Your task to perform on an android device: turn vacation reply on in the gmail app Image 0: 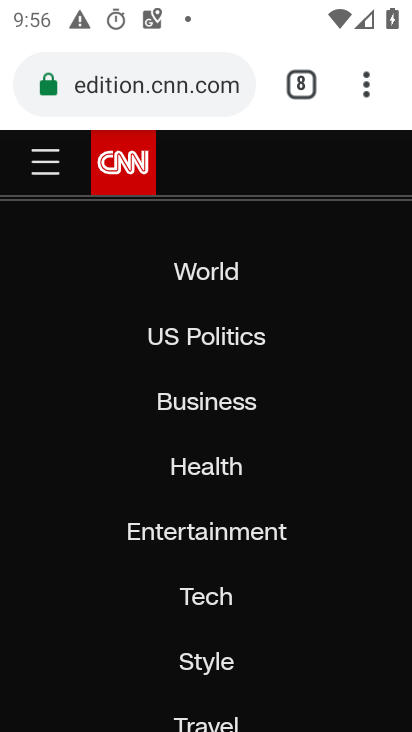
Step 0: press home button
Your task to perform on an android device: turn vacation reply on in the gmail app Image 1: 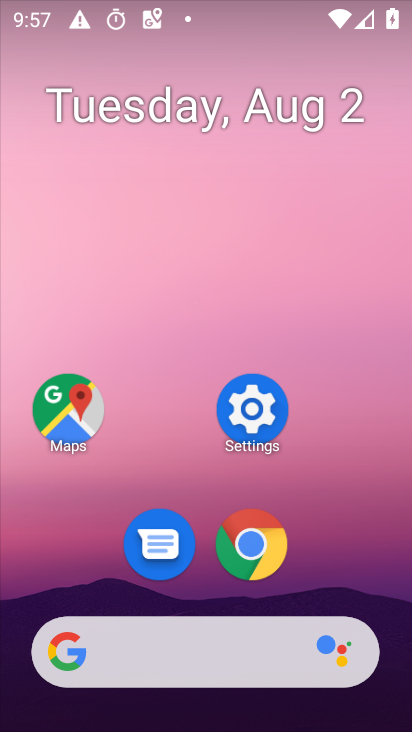
Step 1: drag from (245, 504) to (350, 100)
Your task to perform on an android device: turn vacation reply on in the gmail app Image 2: 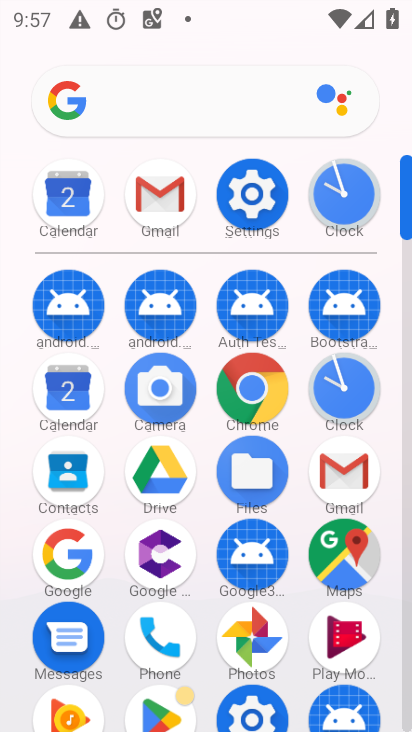
Step 2: click (160, 206)
Your task to perform on an android device: turn vacation reply on in the gmail app Image 3: 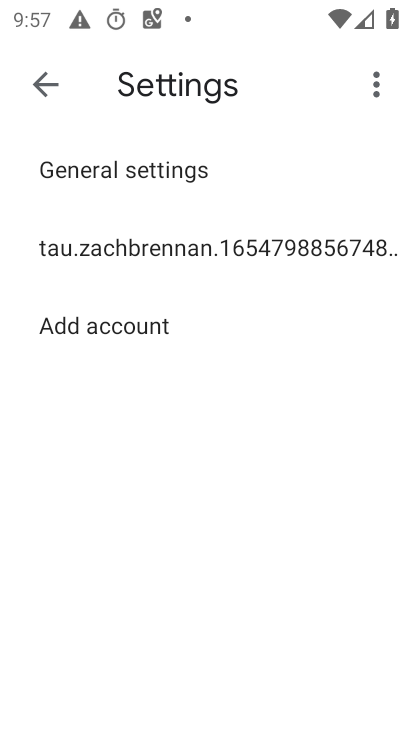
Step 3: click (244, 248)
Your task to perform on an android device: turn vacation reply on in the gmail app Image 4: 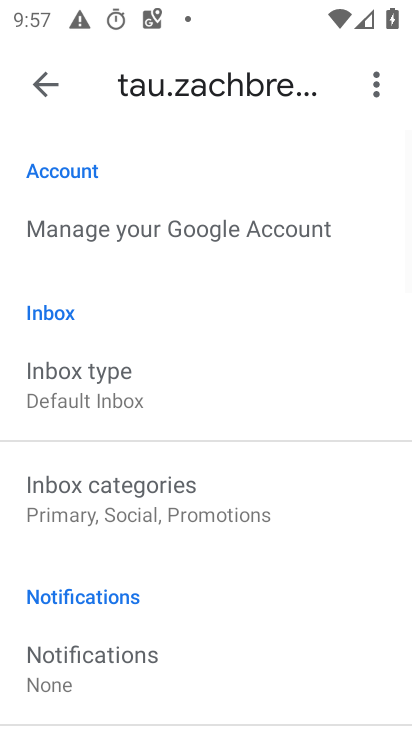
Step 4: drag from (208, 568) to (365, 56)
Your task to perform on an android device: turn vacation reply on in the gmail app Image 5: 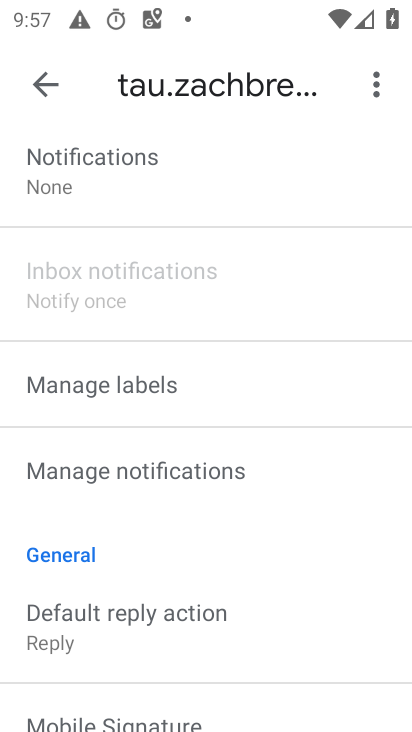
Step 5: drag from (260, 590) to (352, 174)
Your task to perform on an android device: turn vacation reply on in the gmail app Image 6: 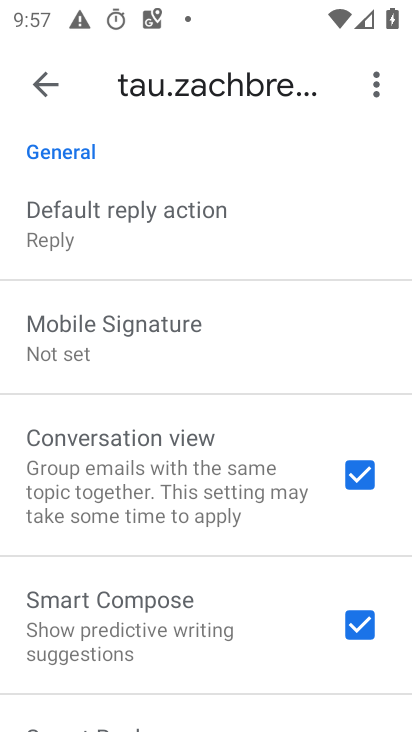
Step 6: drag from (215, 640) to (319, 212)
Your task to perform on an android device: turn vacation reply on in the gmail app Image 7: 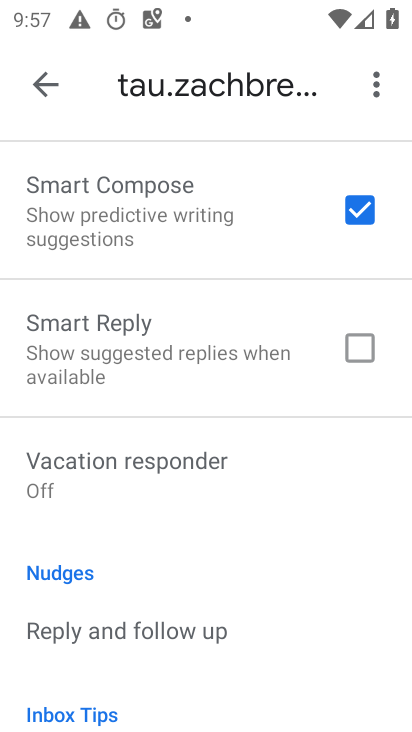
Step 7: click (155, 464)
Your task to perform on an android device: turn vacation reply on in the gmail app Image 8: 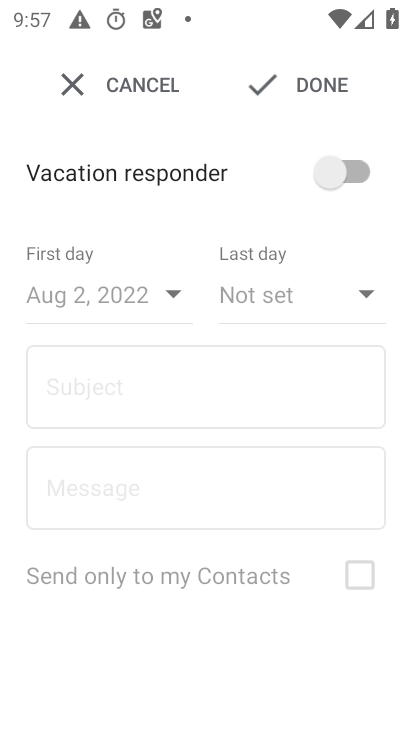
Step 8: click (360, 175)
Your task to perform on an android device: turn vacation reply on in the gmail app Image 9: 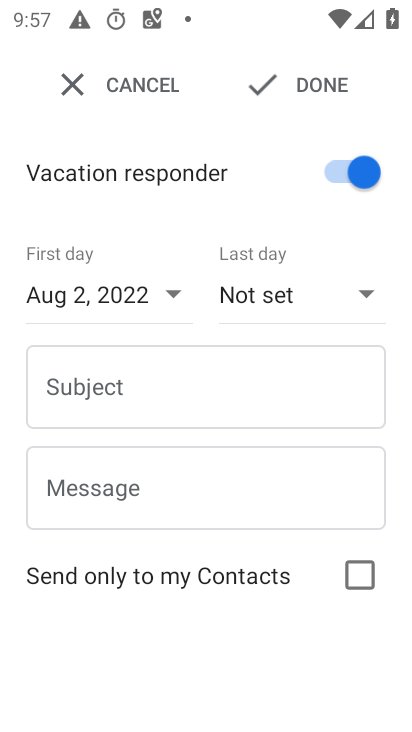
Step 9: click (326, 79)
Your task to perform on an android device: turn vacation reply on in the gmail app Image 10: 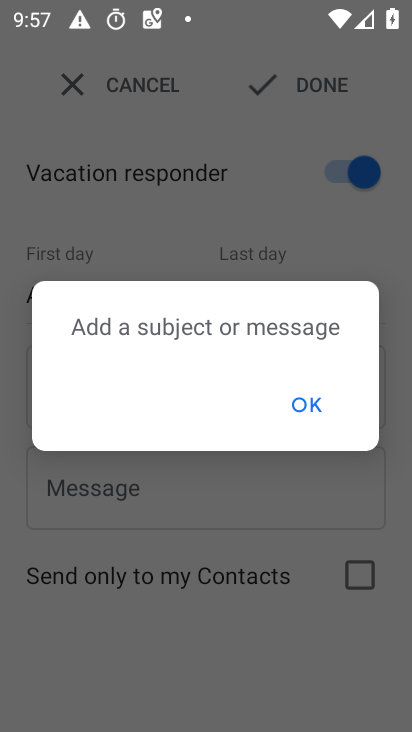
Step 10: click (303, 405)
Your task to perform on an android device: turn vacation reply on in the gmail app Image 11: 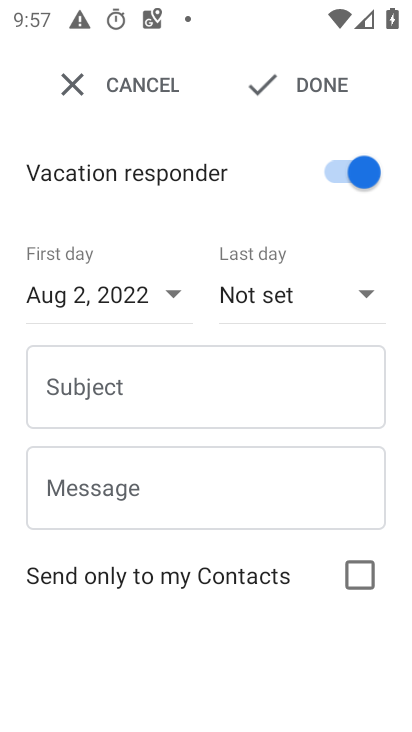
Step 11: click (144, 398)
Your task to perform on an android device: turn vacation reply on in the gmail app Image 12: 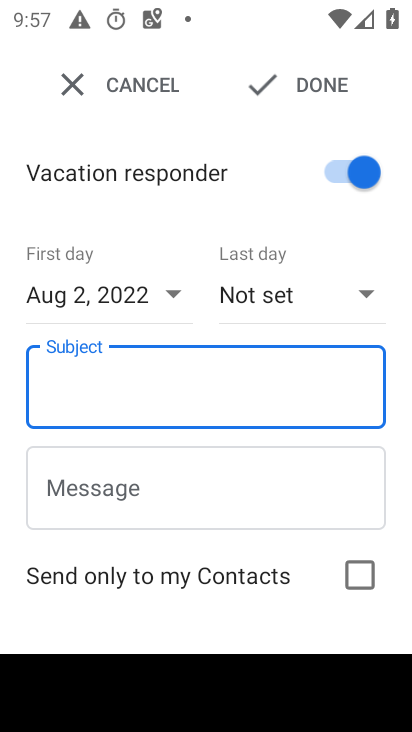
Step 12: type "dfrgg"
Your task to perform on an android device: turn vacation reply on in the gmail app Image 13: 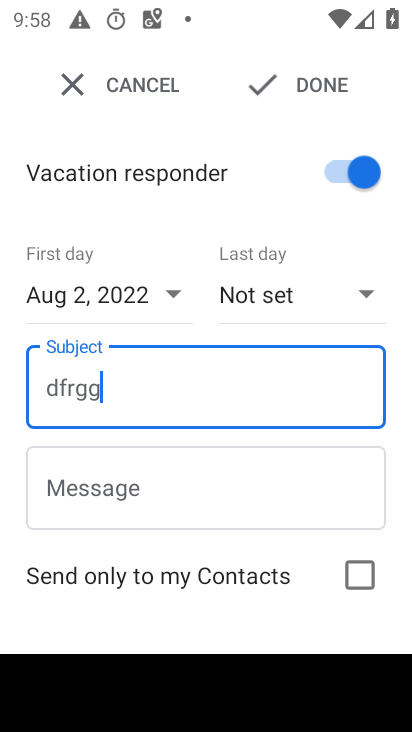
Step 13: click (162, 493)
Your task to perform on an android device: turn vacation reply on in the gmail app Image 14: 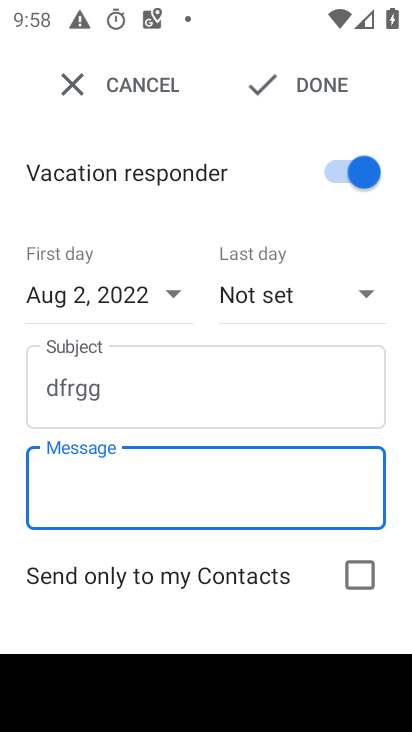
Step 14: type "kuttghjk"
Your task to perform on an android device: turn vacation reply on in the gmail app Image 15: 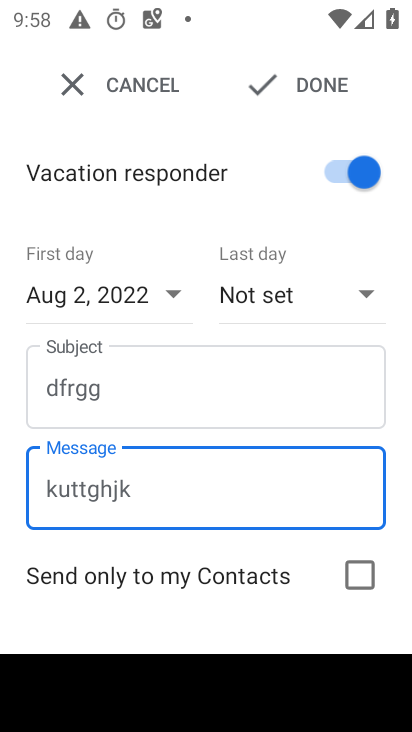
Step 15: click (337, 81)
Your task to perform on an android device: turn vacation reply on in the gmail app Image 16: 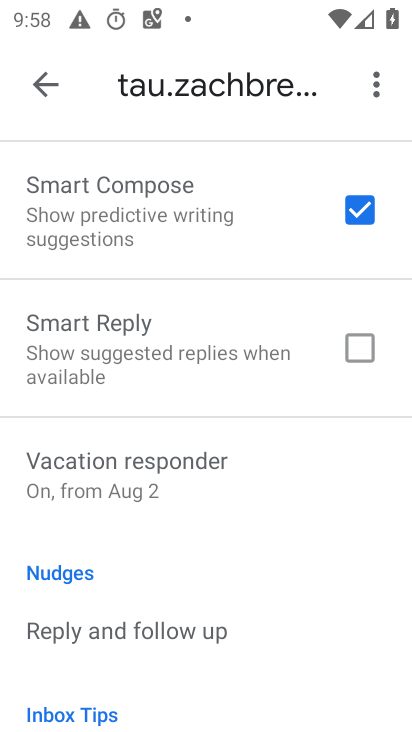
Step 16: task complete